Your task to perform on an android device: empty trash in google photos Image 0: 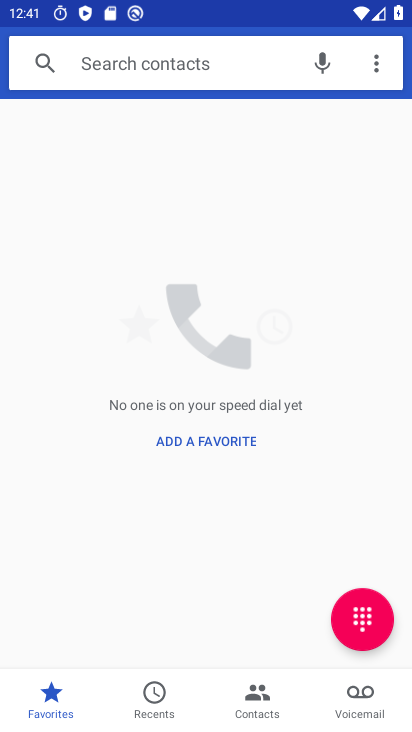
Step 0: press home button
Your task to perform on an android device: empty trash in google photos Image 1: 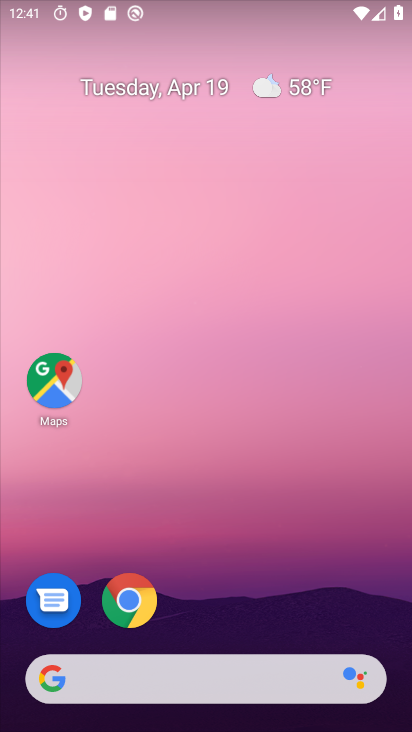
Step 1: drag from (231, 718) to (308, 283)
Your task to perform on an android device: empty trash in google photos Image 2: 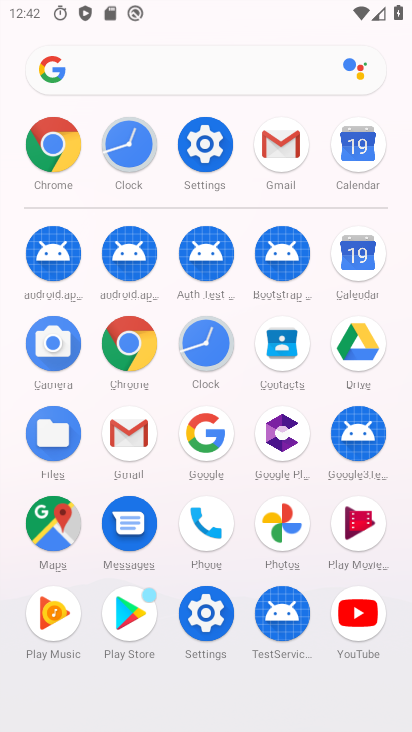
Step 2: click (257, 521)
Your task to perform on an android device: empty trash in google photos Image 3: 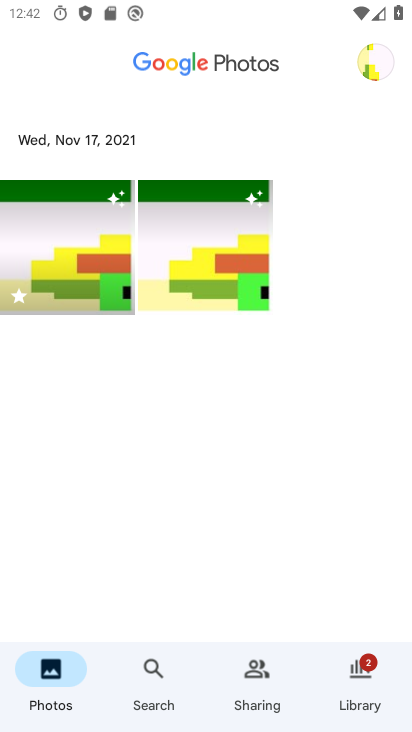
Step 3: click (380, 60)
Your task to perform on an android device: empty trash in google photos Image 4: 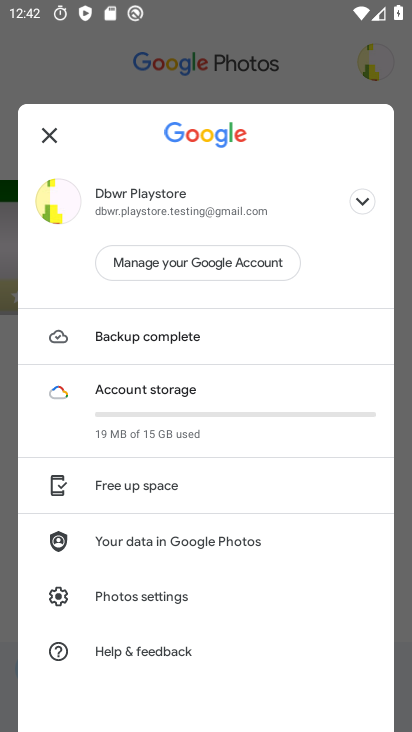
Step 4: click (117, 592)
Your task to perform on an android device: empty trash in google photos Image 5: 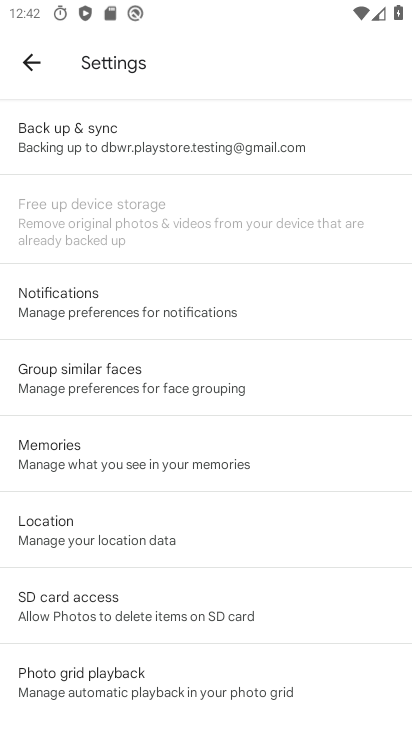
Step 5: drag from (96, 490) to (210, 240)
Your task to perform on an android device: empty trash in google photos Image 6: 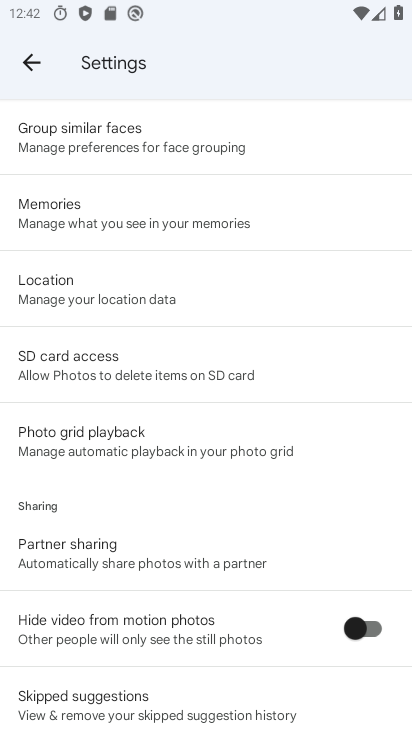
Step 6: click (32, 56)
Your task to perform on an android device: empty trash in google photos Image 7: 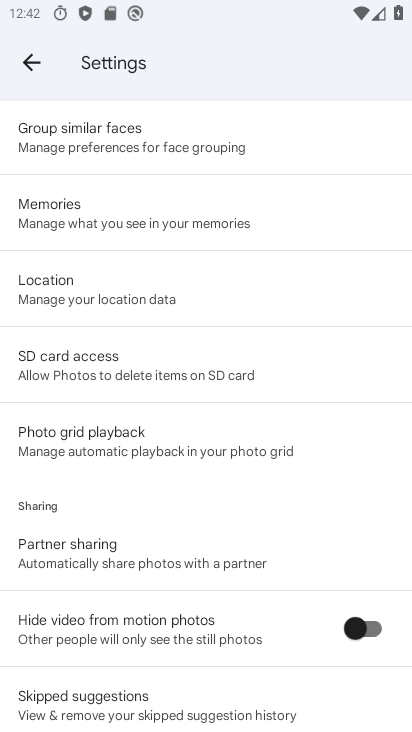
Step 7: click (37, 59)
Your task to perform on an android device: empty trash in google photos Image 8: 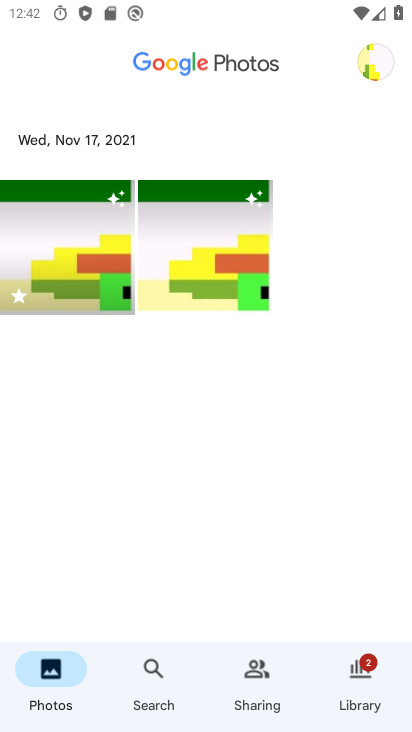
Step 8: click (153, 679)
Your task to perform on an android device: empty trash in google photos Image 9: 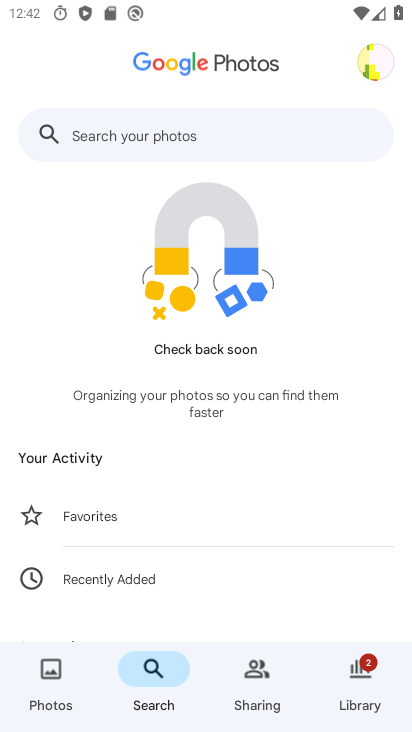
Step 9: click (114, 139)
Your task to perform on an android device: empty trash in google photos Image 10: 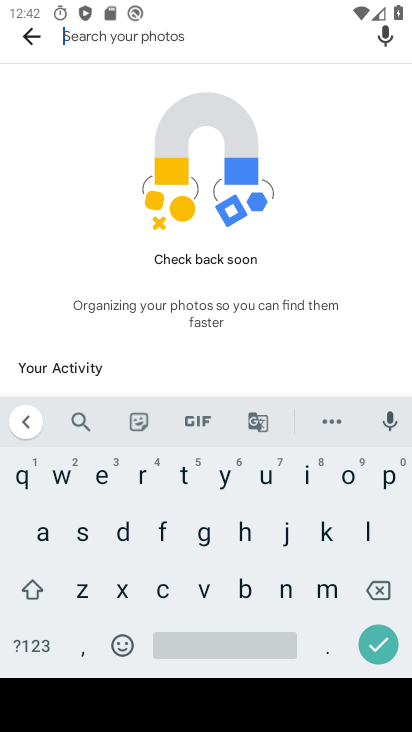
Step 10: click (175, 476)
Your task to perform on an android device: empty trash in google photos Image 11: 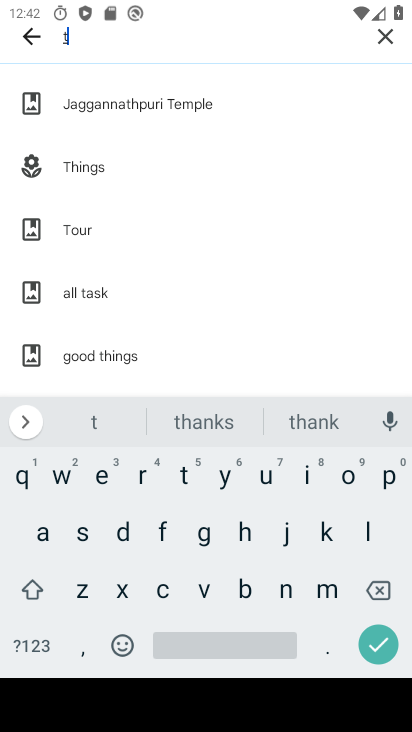
Step 11: click (137, 482)
Your task to perform on an android device: empty trash in google photos Image 12: 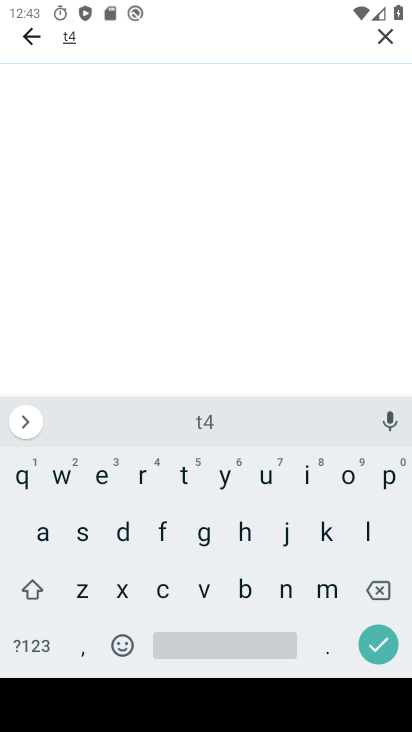
Step 12: click (380, 585)
Your task to perform on an android device: empty trash in google photos Image 13: 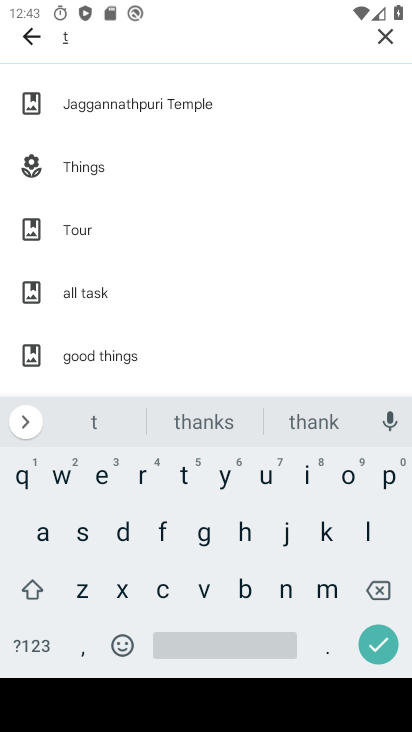
Step 13: drag from (248, 513) to (145, 477)
Your task to perform on an android device: empty trash in google photos Image 14: 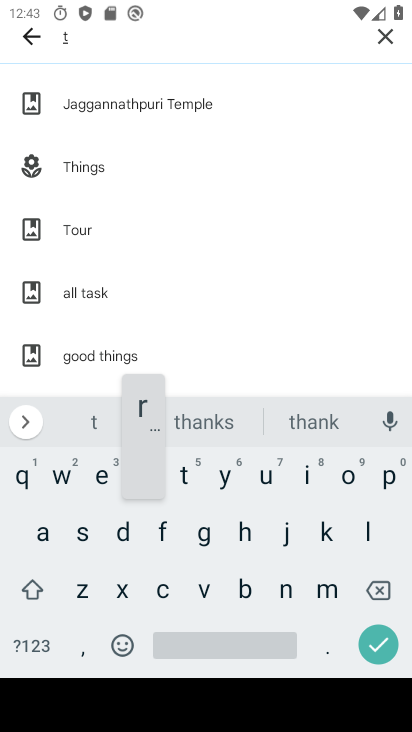
Step 14: click (145, 477)
Your task to perform on an android device: empty trash in google photos Image 15: 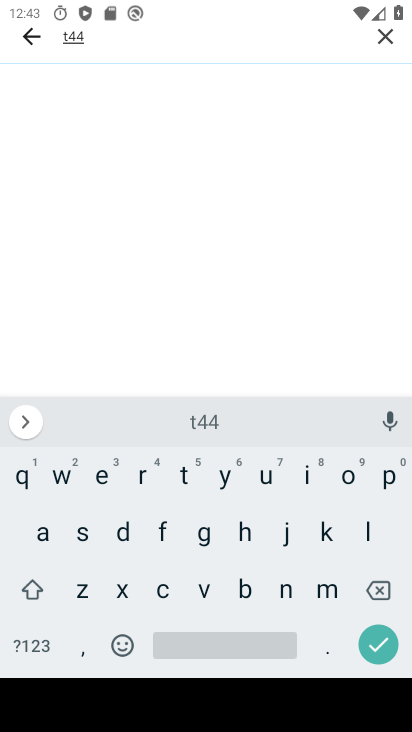
Step 15: click (371, 592)
Your task to perform on an android device: empty trash in google photos Image 16: 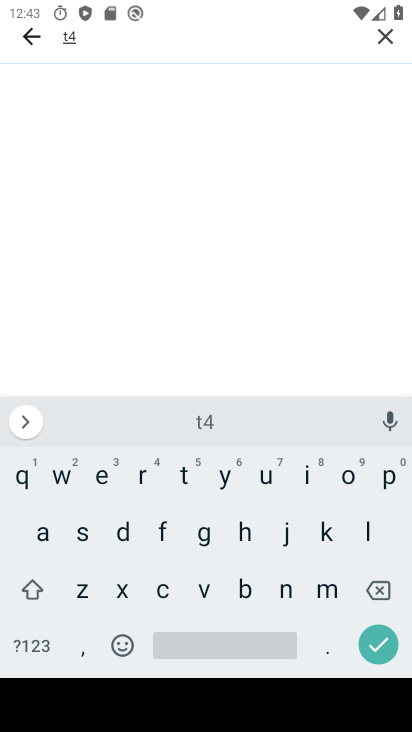
Step 16: click (371, 592)
Your task to perform on an android device: empty trash in google photos Image 17: 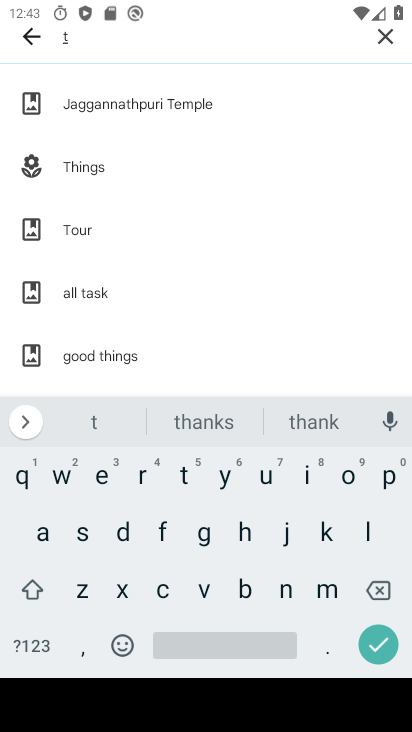
Step 17: click (138, 483)
Your task to perform on an android device: empty trash in google photos Image 18: 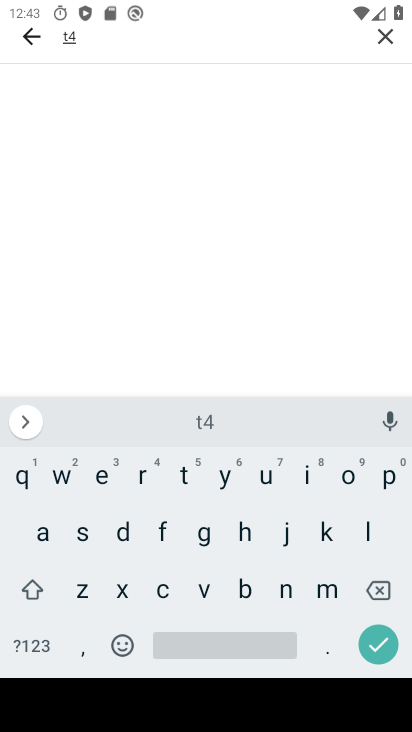
Step 18: click (382, 586)
Your task to perform on an android device: empty trash in google photos Image 19: 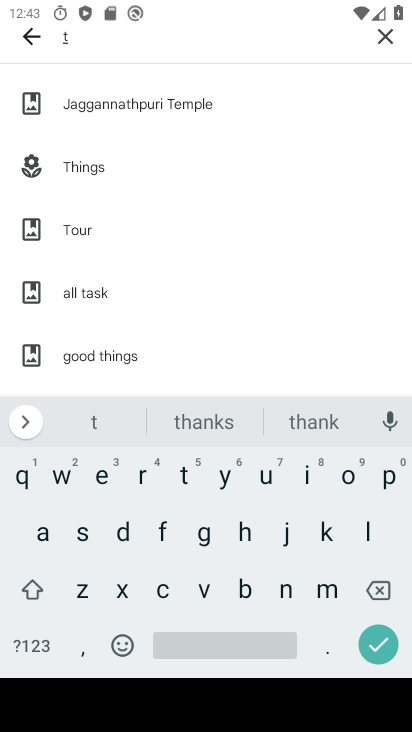
Step 19: click (145, 489)
Your task to perform on an android device: empty trash in google photos Image 20: 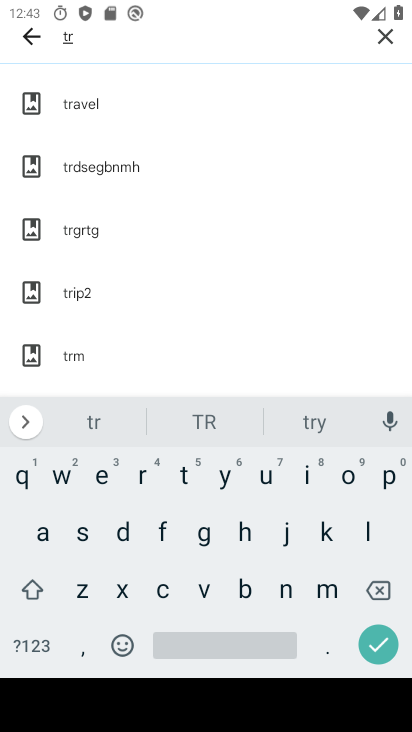
Step 20: click (36, 531)
Your task to perform on an android device: empty trash in google photos Image 21: 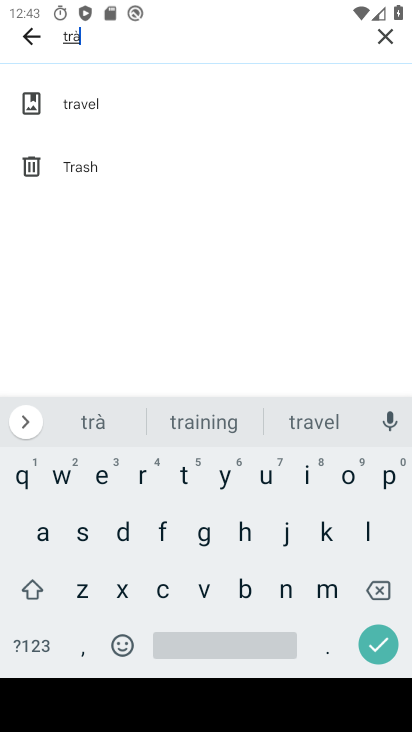
Step 21: click (68, 177)
Your task to perform on an android device: empty trash in google photos Image 22: 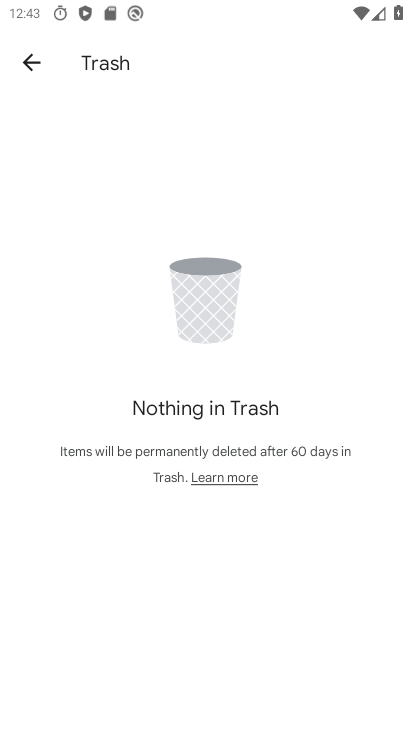
Step 22: task complete